Your task to perform on an android device: install app "Microsoft Outlook" Image 0: 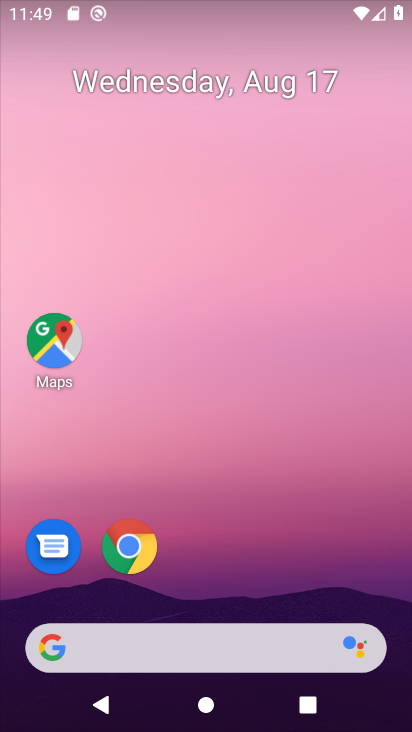
Step 0: drag from (240, 632) to (204, 14)
Your task to perform on an android device: install app "Microsoft Outlook" Image 1: 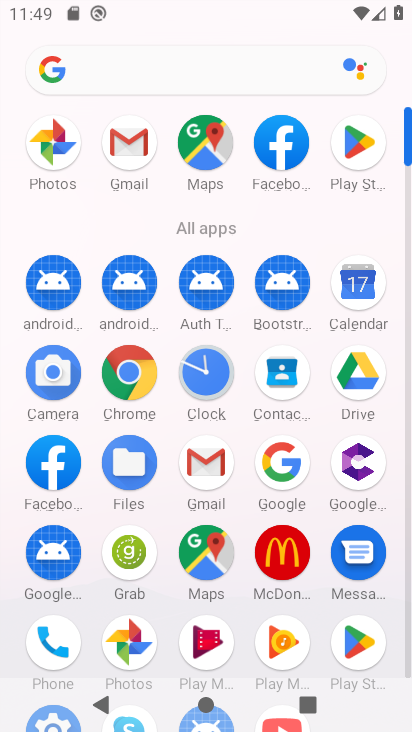
Step 1: click (359, 638)
Your task to perform on an android device: install app "Microsoft Outlook" Image 2: 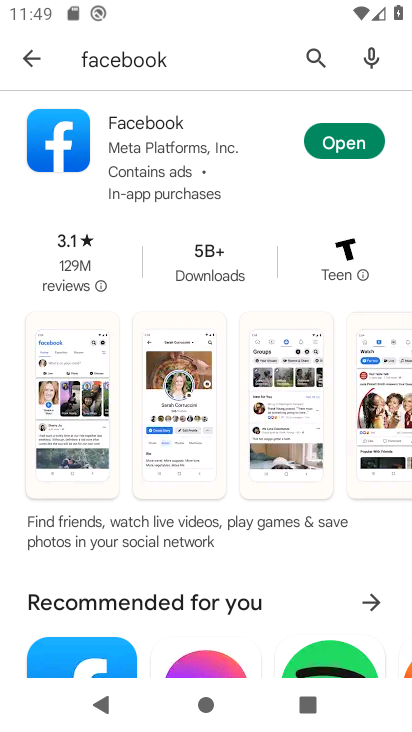
Step 2: click (311, 54)
Your task to perform on an android device: install app "Microsoft Outlook" Image 3: 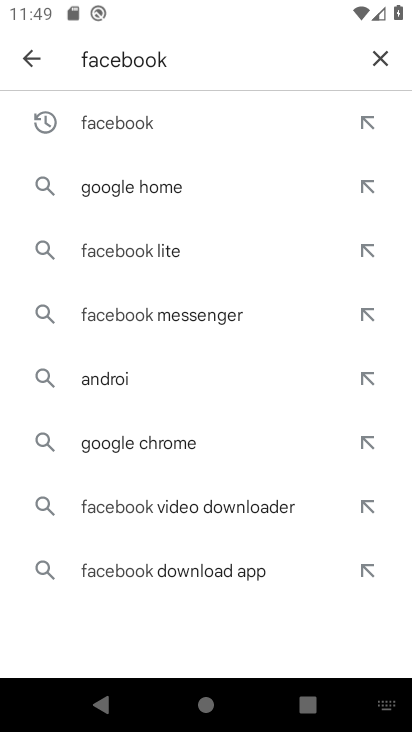
Step 3: click (379, 53)
Your task to perform on an android device: install app "Microsoft Outlook" Image 4: 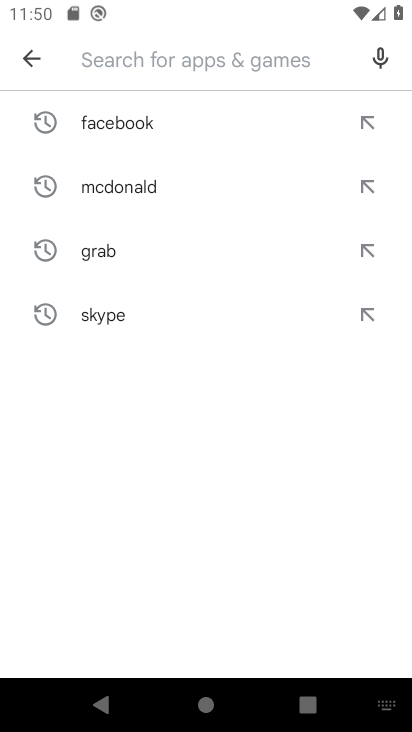
Step 4: type "microsoft outlook"
Your task to perform on an android device: install app "Microsoft Outlook" Image 5: 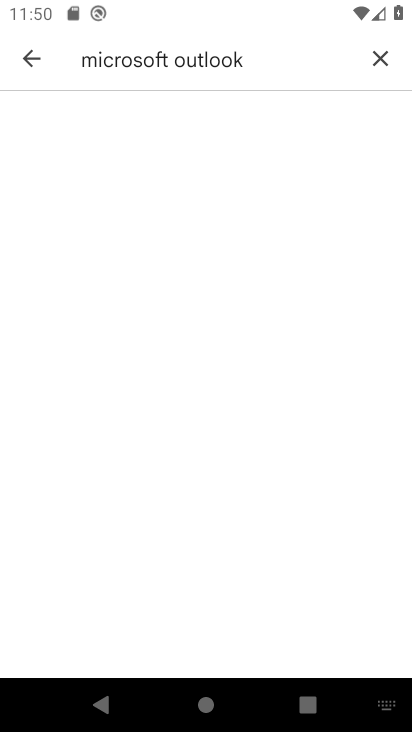
Step 5: press enter
Your task to perform on an android device: install app "Microsoft Outlook" Image 6: 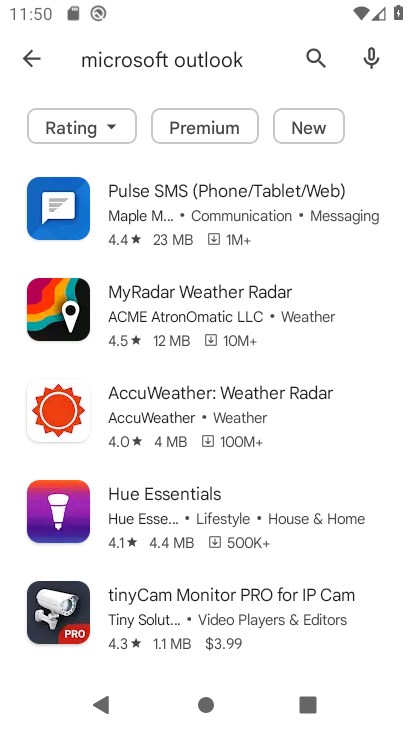
Step 6: task complete